Your task to perform on an android device: Search for "corsair k70" on walmart, select the first entry, and add it to the cart. Image 0: 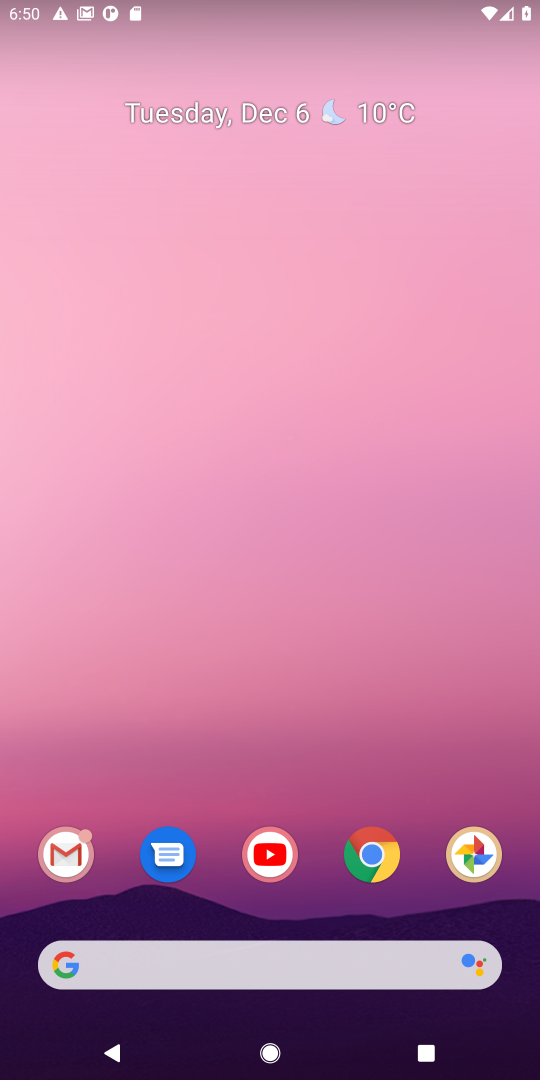
Step 0: click (384, 854)
Your task to perform on an android device: Search for "corsair k70" on walmart, select the first entry, and add it to the cart. Image 1: 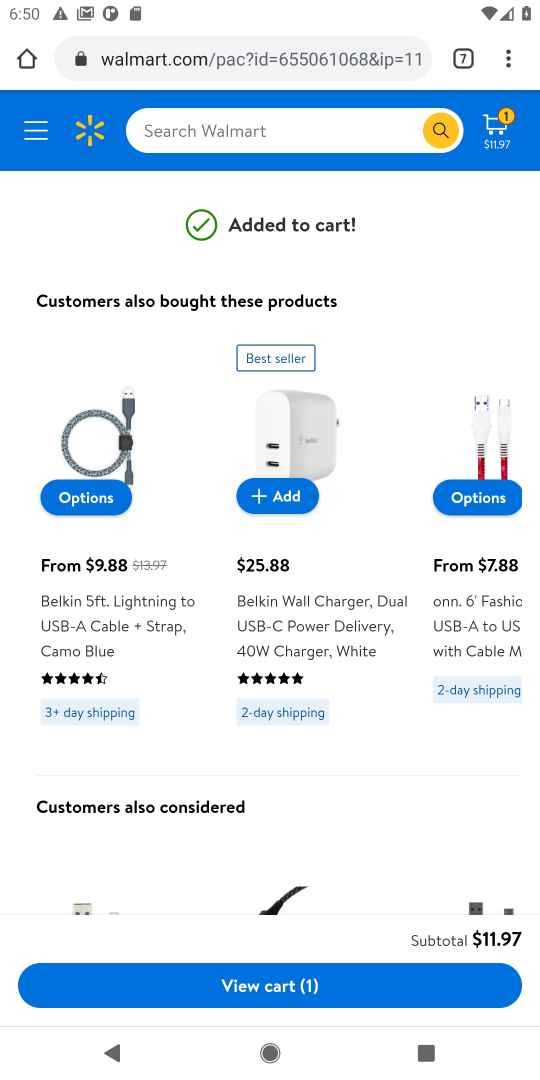
Step 1: click (265, 140)
Your task to perform on an android device: Search for "corsair k70" on walmart, select the first entry, and add it to the cart. Image 2: 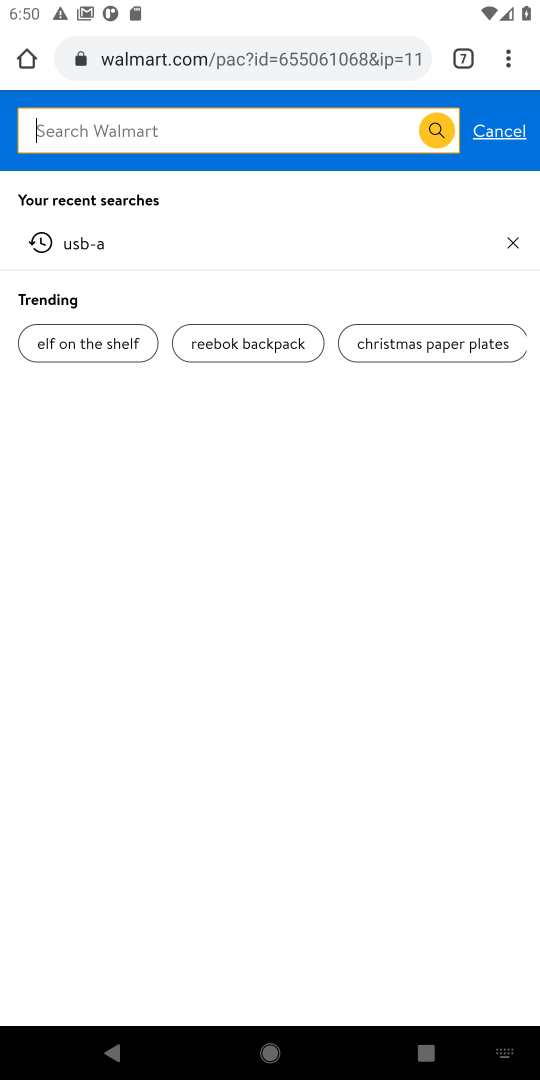
Step 2: type "corsair k70"
Your task to perform on an android device: Search for "corsair k70" on walmart, select the first entry, and add it to the cart. Image 3: 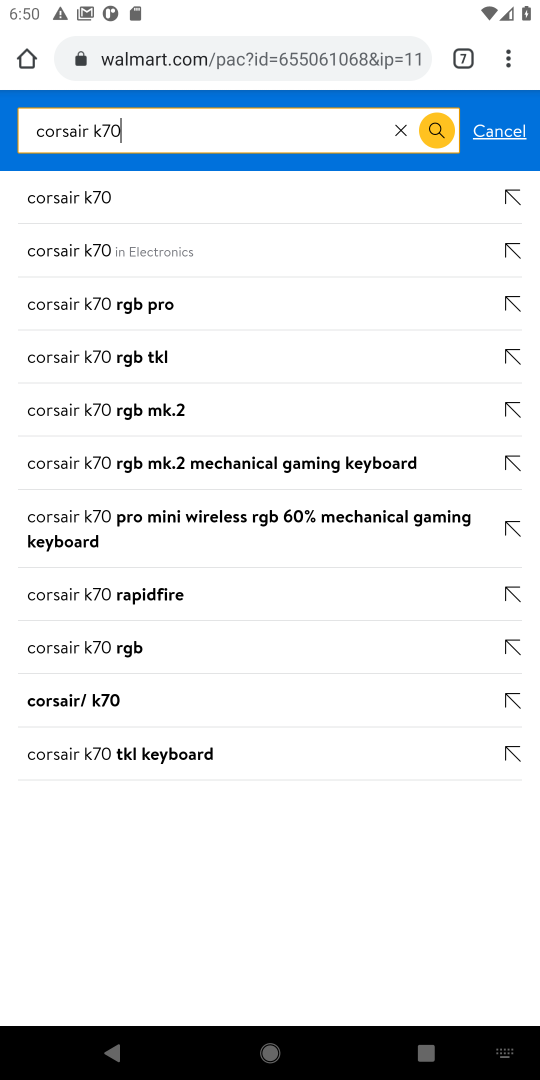
Step 3: click (91, 253)
Your task to perform on an android device: Search for "corsair k70" on walmart, select the first entry, and add it to the cart. Image 4: 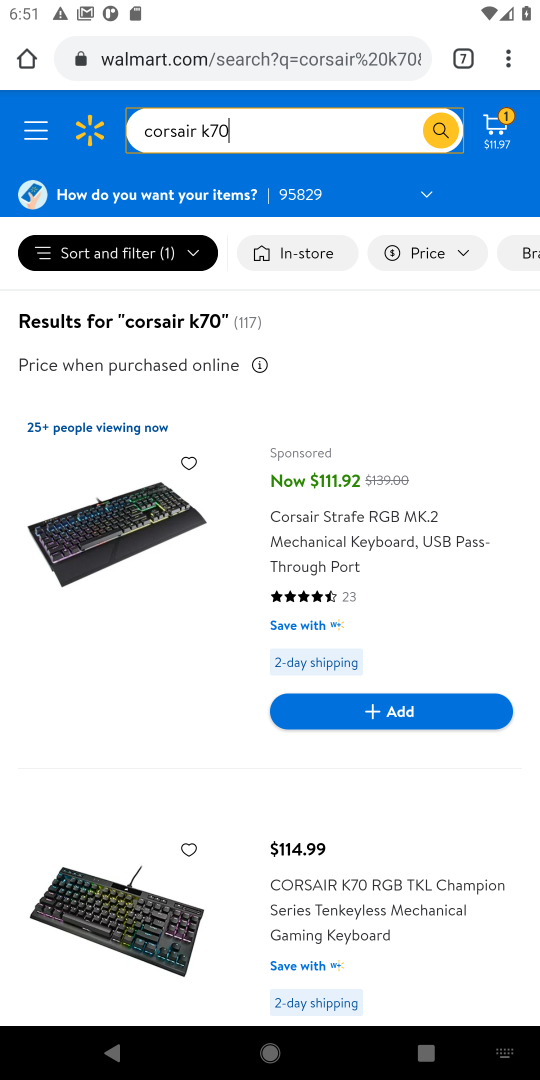
Step 4: drag from (245, 848) to (310, 698)
Your task to perform on an android device: Search for "corsair k70" on walmart, select the first entry, and add it to the cart. Image 5: 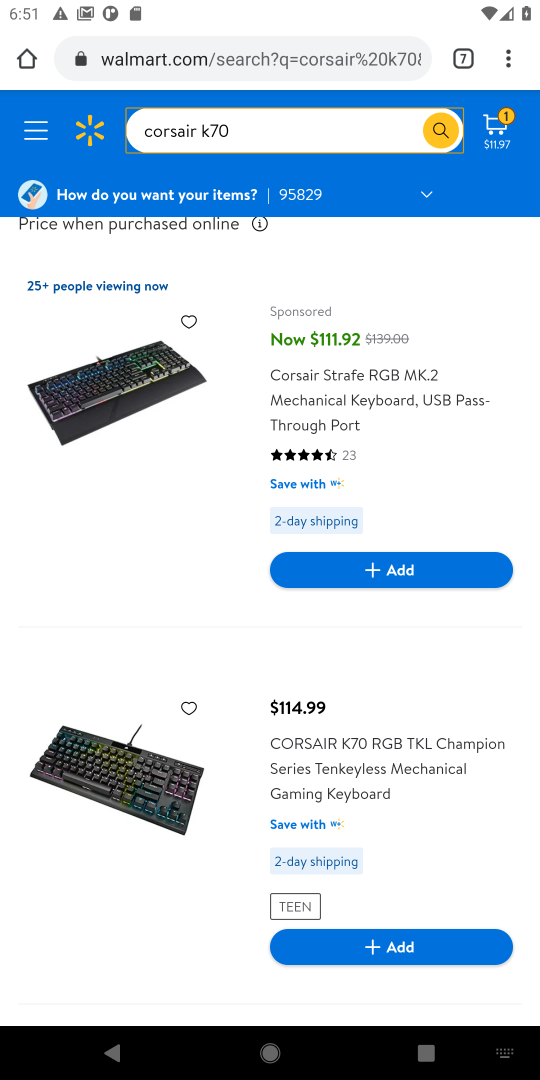
Step 5: click (355, 951)
Your task to perform on an android device: Search for "corsair k70" on walmart, select the first entry, and add it to the cart. Image 6: 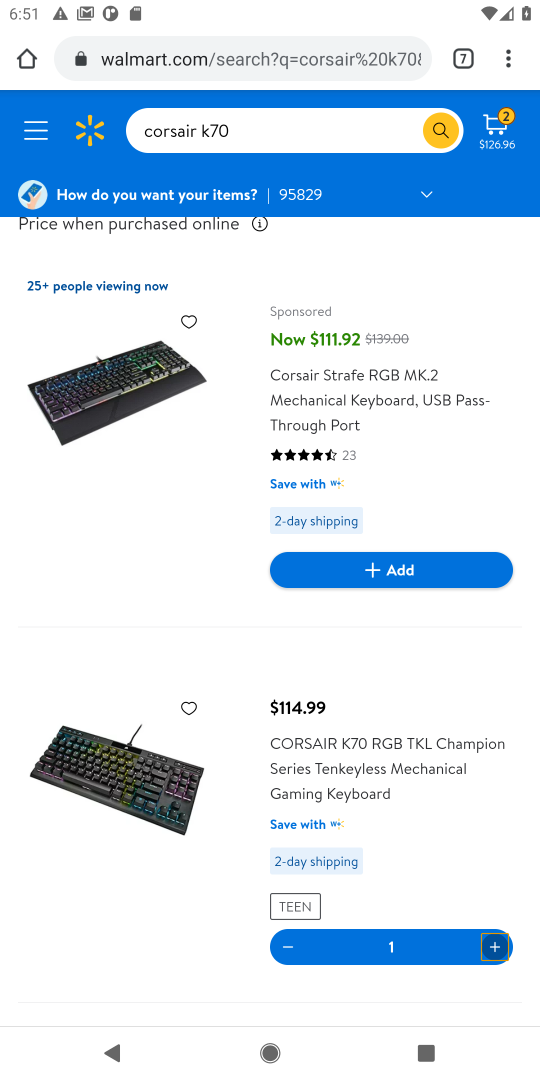
Step 6: task complete